Your task to perform on an android device: What's the weather like in Hong Kong? Image 0: 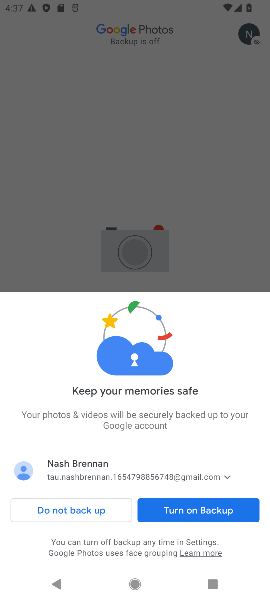
Step 0: click (140, 590)
Your task to perform on an android device: What's the weather like in Hong Kong? Image 1: 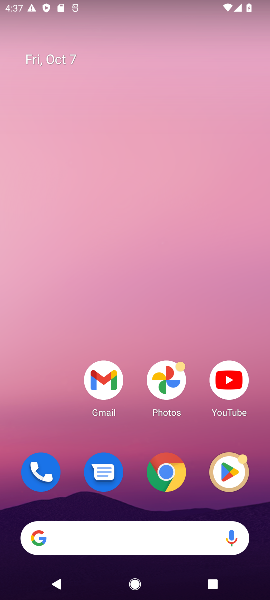
Step 1: click (169, 467)
Your task to perform on an android device: What's the weather like in Hong Kong? Image 2: 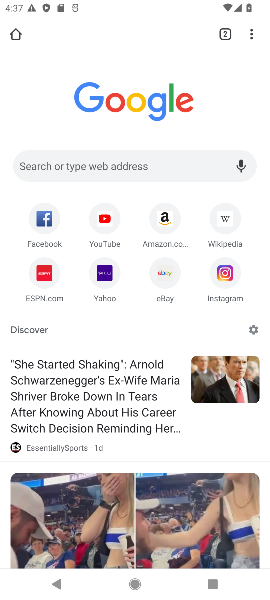
Step 2: click (165, 161)
Your task to perform on an android device: What's the weather like in Hong Kong? Image 3: 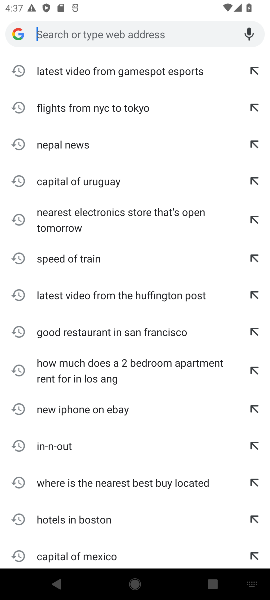
Step 3: type "weather like in Hong Kong"
Your task to perform on an android device: What's the weather like in Hong Kong? Image 4: 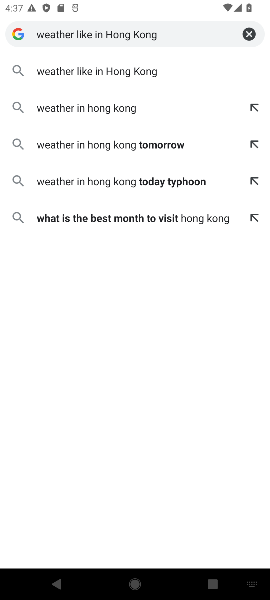
Step 4: click (121, 67)
Your task to perform on an android device: What's the weather like in Hong Kong? Image 5: 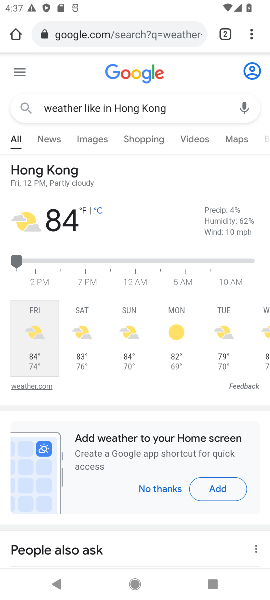
Step 5: task complete